Your task to perform on an android device: Search for seafood restaurants on Google Maps Image 0: 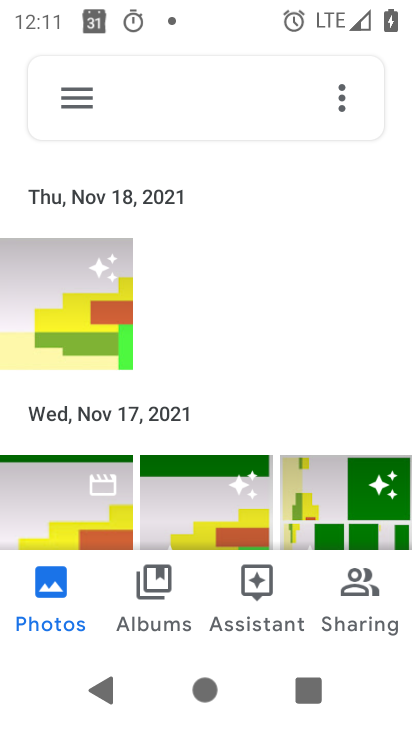
Step 0: drag from (232, 581) to (395, 260)
Your task to perform on an android device: Search for seafood restaurants on Google Maps Image 1: 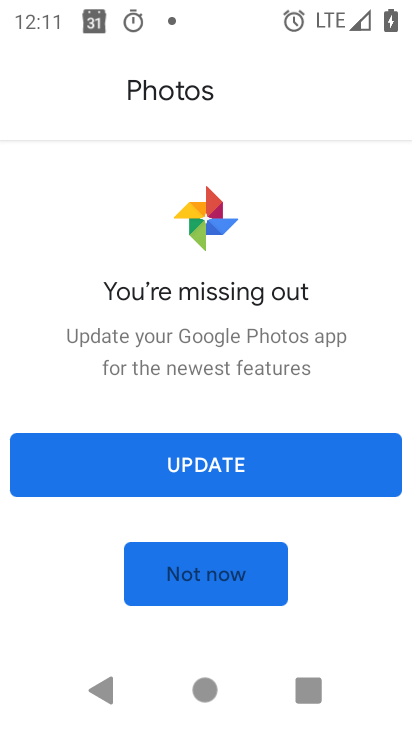
Step 1: press home button
Your task to perform on an android device: Search for seafood restaurants on Google Maps Image 2: 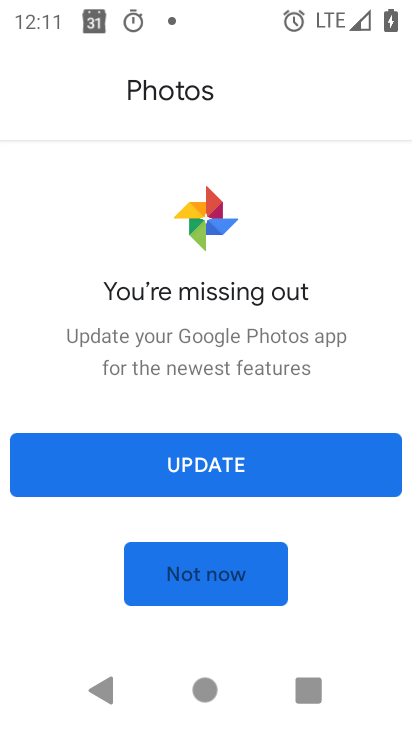
Step 2: drag from (395, 260) to (406, 454)
Your task to perform on an android device: Search for seafood restaurants on Google Maps Image 3: 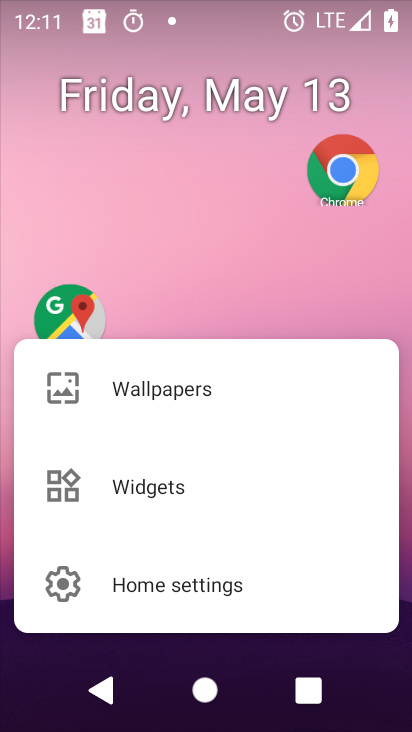
Step 3: click (304, 324)
Your task to perform on an android device: Search for seafood restaurants on Google Maps Image 4: 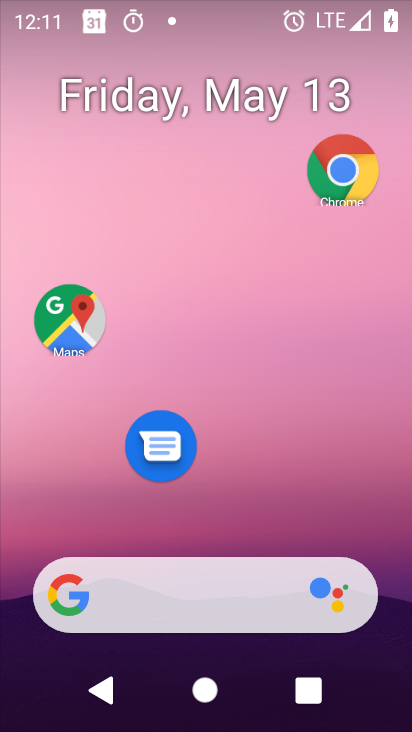
Step 4: drag from (306, 579) to (286, 11)
Your task to perform on an android device: Search for seafood restaurants on Google Maps Image 5: 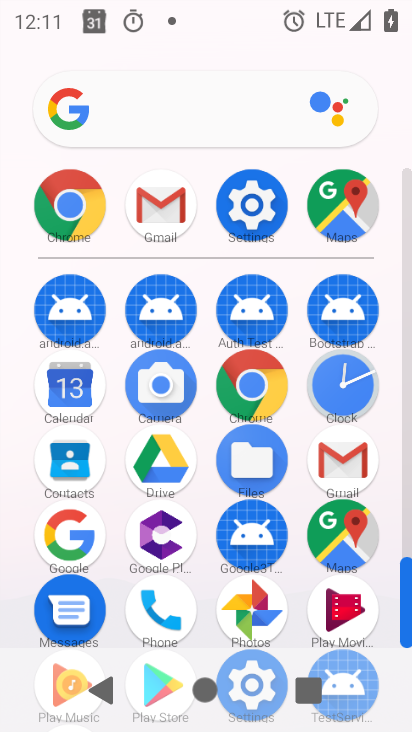
Step 5: click (359, 540)
Your task to perform on an android device: Search for seafood restaurants on Google Maps Image 6: 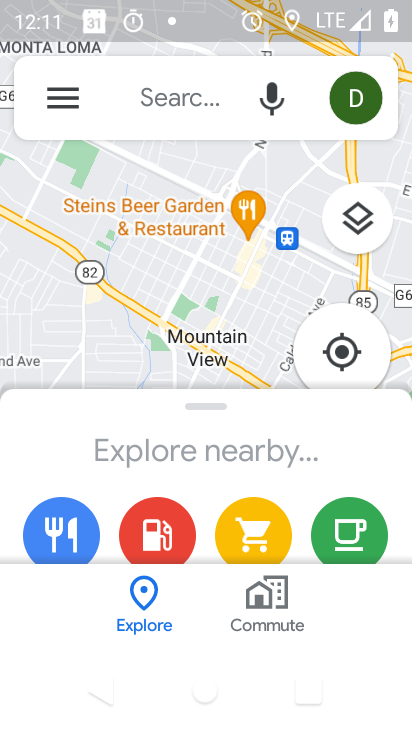
Step 6: click (211, 110)
Your task to perform on an android device: Search for seafood restaurants on Google Maps Image 7: 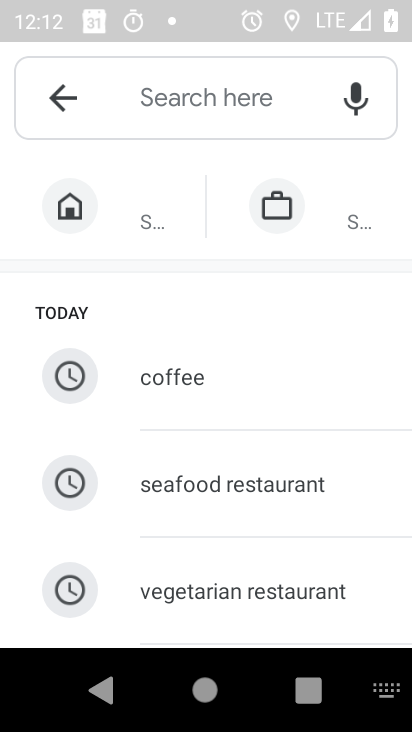
Step 7: click (307, 476)
Your task to perform on an android device: Search for seafood restaurants on Google Maps Image 8: 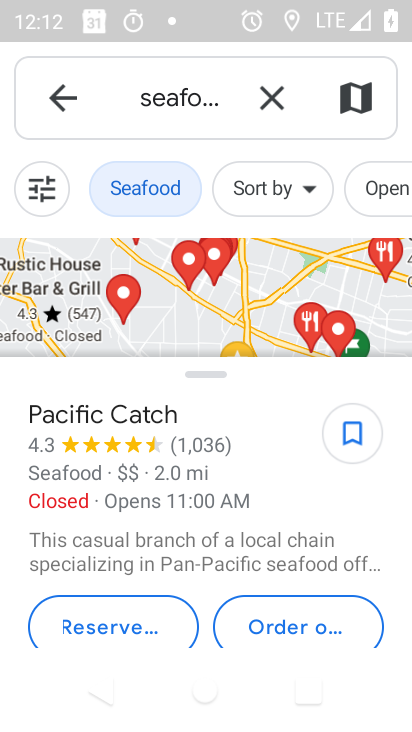
Step 8: task complete